Your task to perform on an android device: Go to internet settings Image 0: 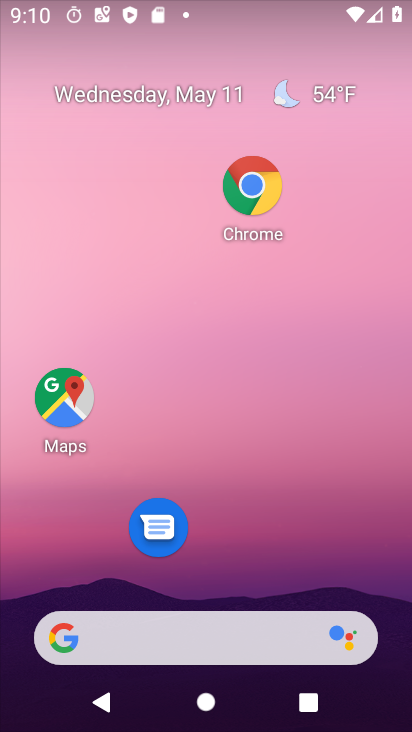
Step 0: drag from (252, 538) to (208, 59)
Your task to perform on an android device: Go to internet settings Image 1: 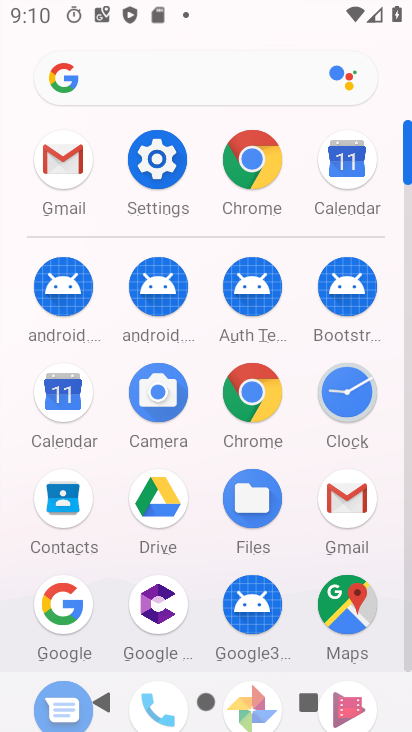
Step 1: click (155, 164)
Your task to perform on an android device: Go to internet settings Image 2: 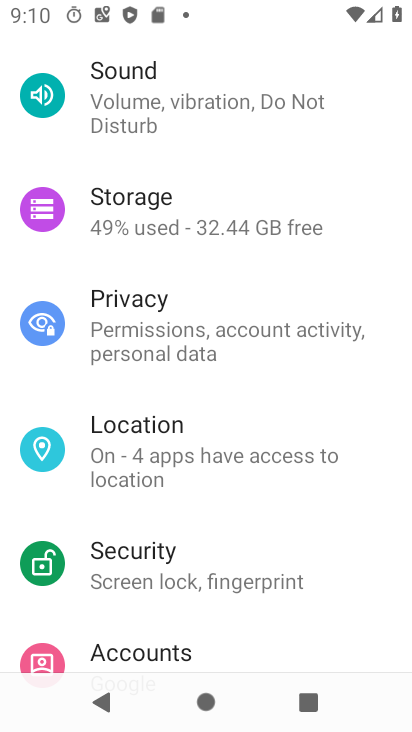
Step 2: drag from (165, 148) to (303, 602)
Your task to perform on an android device: Go to internet settings Image 3: 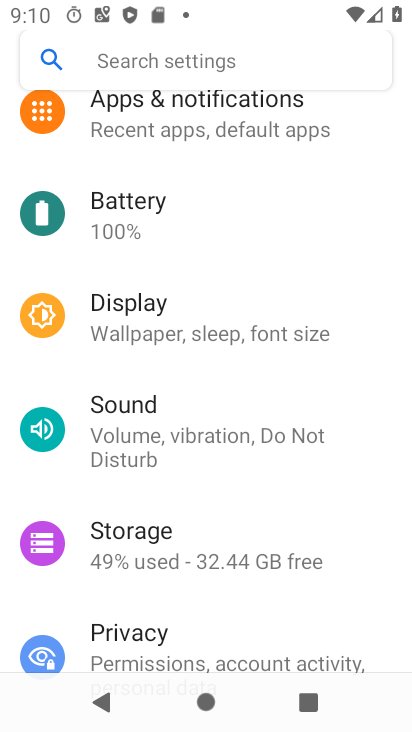
Step 3: drag from (149, 198) to (150, 408)
Your task to perform on an android device: Go to internet settings Image 4: 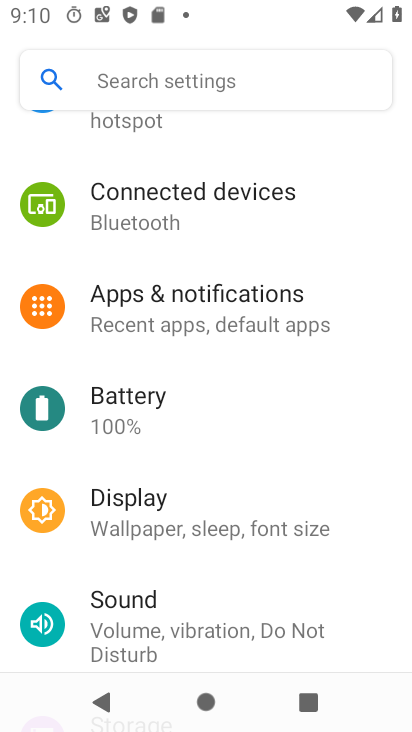
Step 4: drag from (139, 165) to (294, 592)
Your task to perform on an android device: Go to internet settings Image 5: 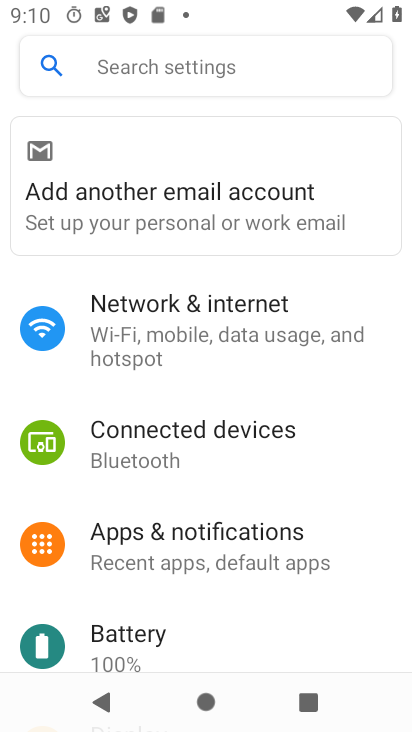
Step 5: click (161, 328)
Your task to perform on an android device: Go to internet settings Image 6: 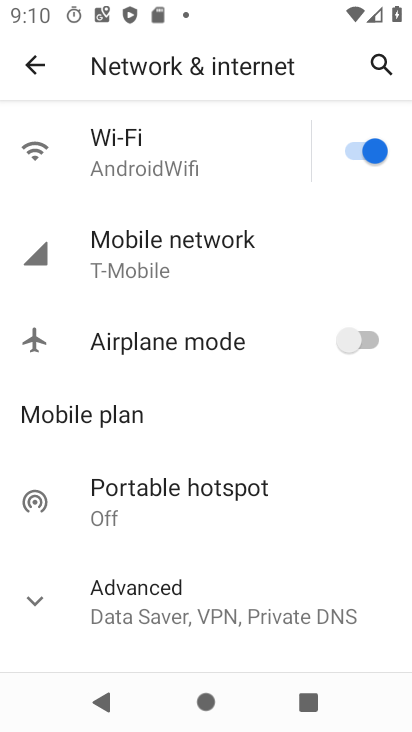
Step 6: click (132, 148)
Your task to perform on an android device: Go to internet settings Image 7: 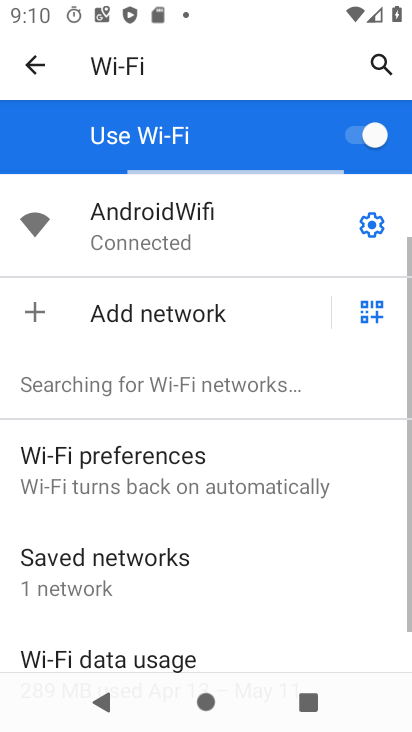
Step 7: click (376, 231)
Your task to perform on an android device: Go to internet settings Image 8: 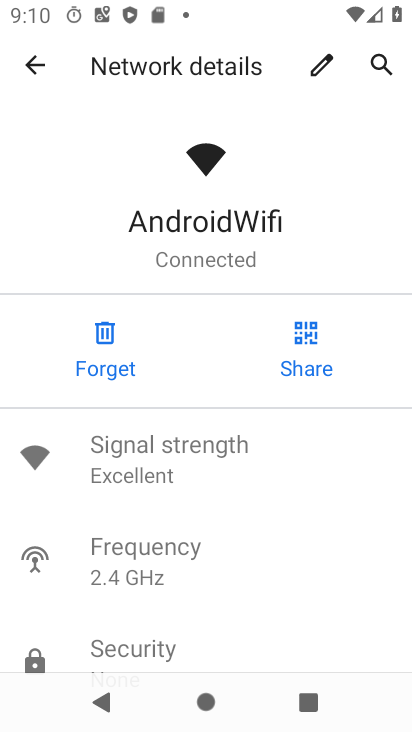
Step 8: task complete